Your task to perform on an android device: change the clock style Image 0: 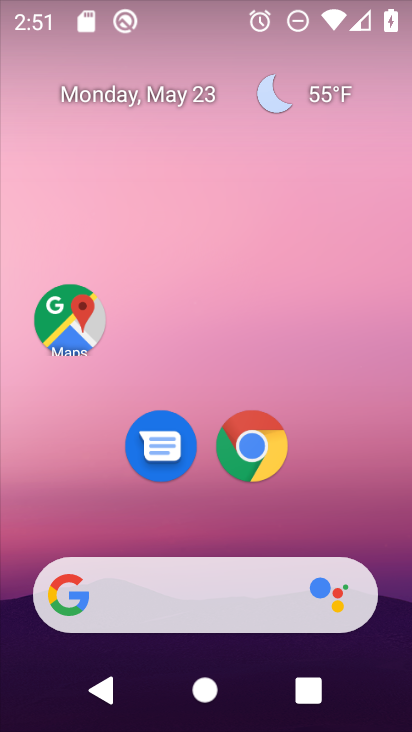
Step 0: drag from (201, 542) to (213, 200)
Your task to perform on an android device: change the clock style Image 1: 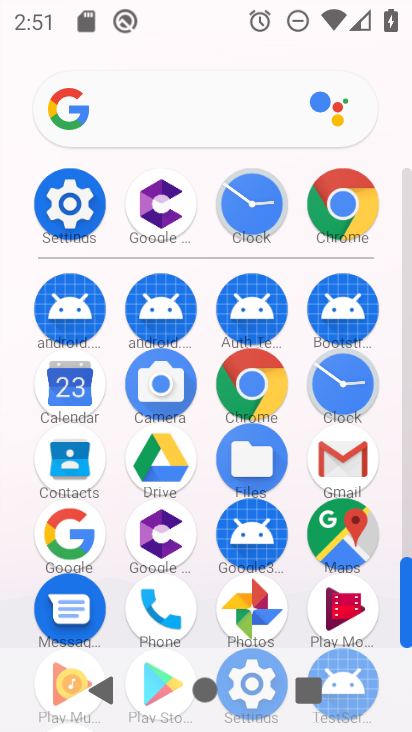
Step 1: click (333, 375)
Your task to perform on an android device: change the clock style Image 2: 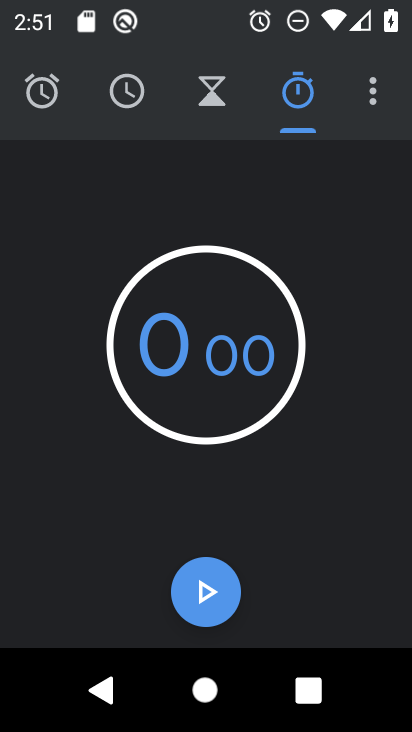
Step 2: click (382, 101)
Your task to perform on an android device: change the clock style Image 3: 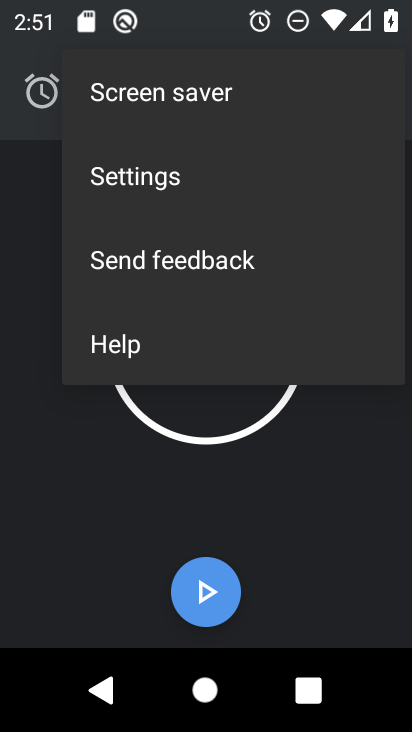
Step 3: click (232, 177)
Your task to perform on an android device: change the clock style Image 4: 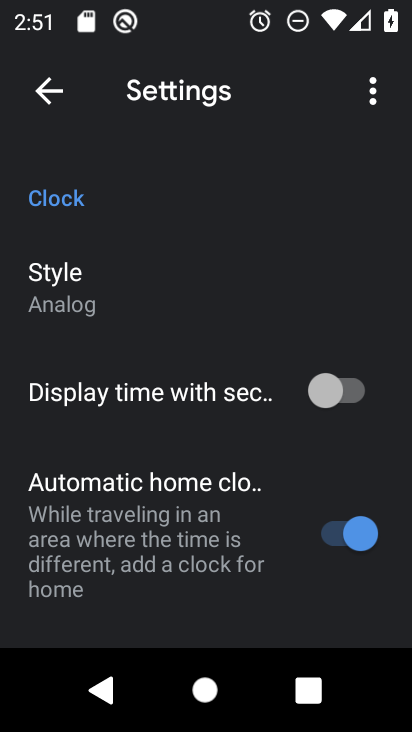
Step 4: click (127, 284)
Your task to perform on an android device: change the clock style Image 5: 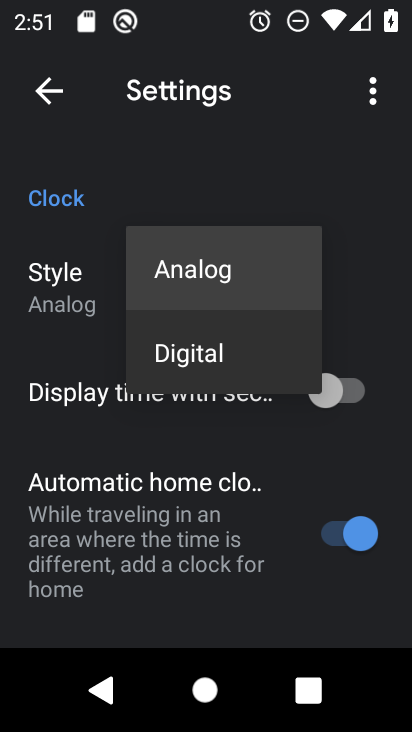
Step 5: click (187, 354)
Your task to perform on an android device: change the clock style Image 6: 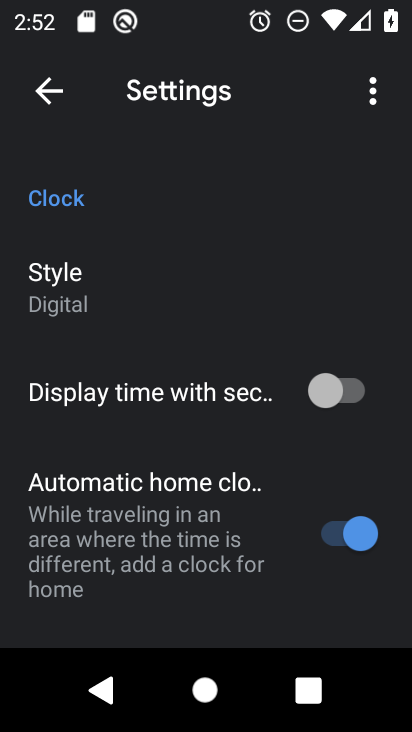
Step 6: task complete